Your task to perform on an android device: Show me productivity apps on the Play Store Image 0: 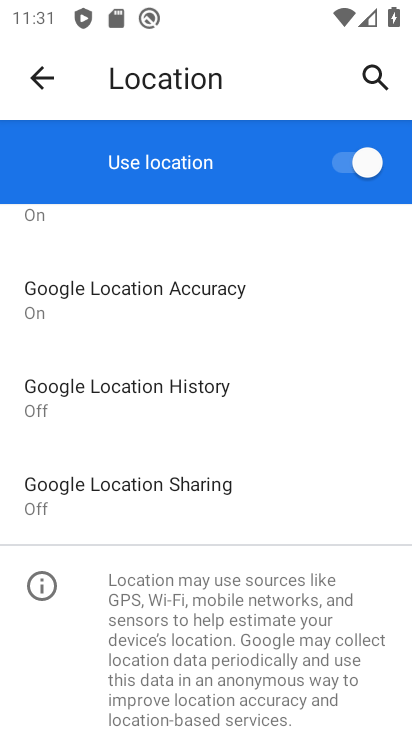
Step 0: press home button
Your task to perform on an android device: Show me productivity apps on the Play Store Image 1: 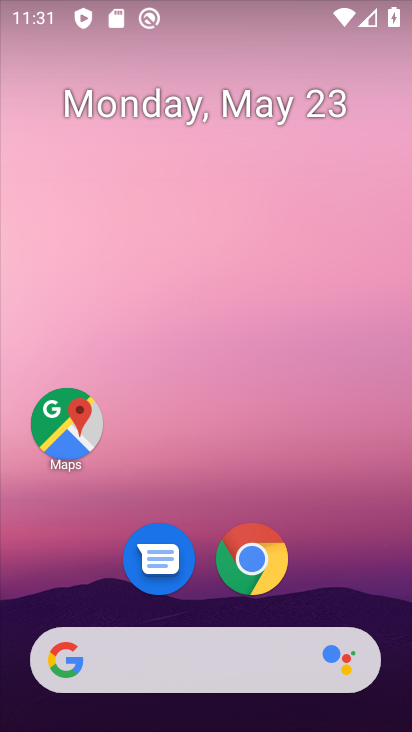
Step 1: drag from (393, 696) to (377, 68)
Your task to perform on an android device: Show me productivity apps on the Play Store Image 2: 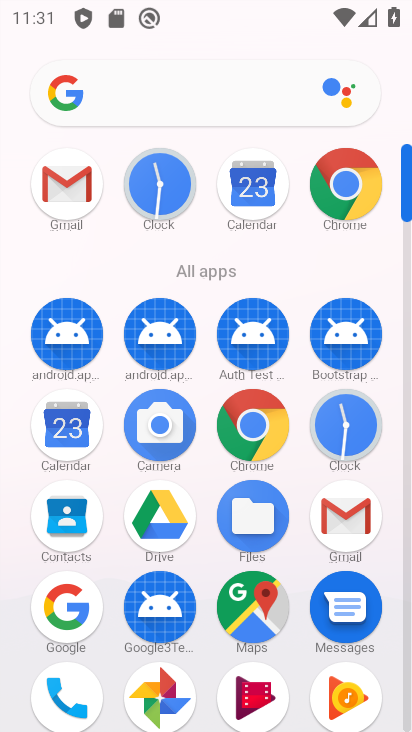
Step 2: drag from (404, 146) to (409, 18)
Your task to perform on an android device: Show me productivity apps on the Play Store Image 3: 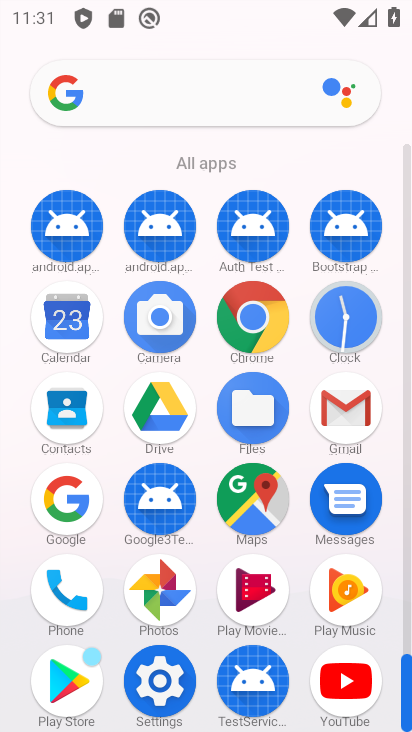
Step 3: click (73, 673)
Your task to perform on an android device: Show me productivity apps on the Play Store Image 4: 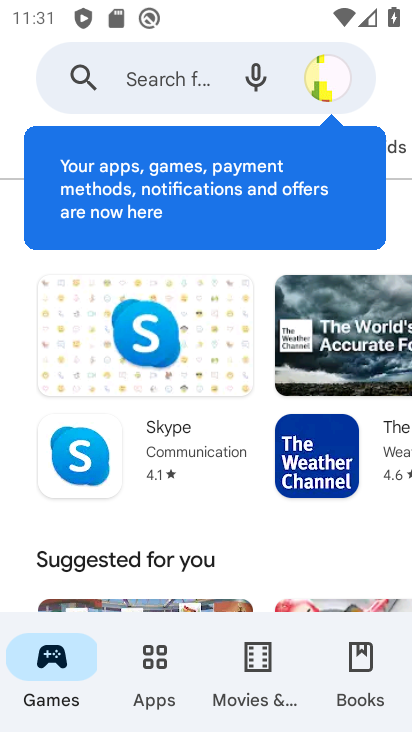
Step 4: click (184, 77)
Your task to perform on an android device: Show me productivity apps on the Play Store Image 5: 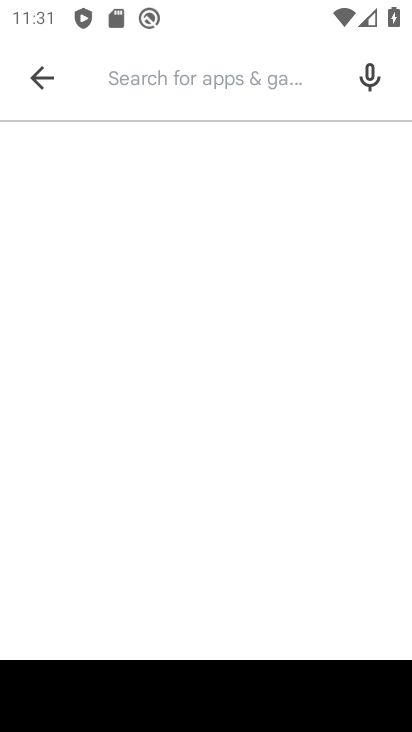
Step 5: type "productivity apps"
Your task to perform on an android device: Show me productivity apps on the Play Store Image 6: 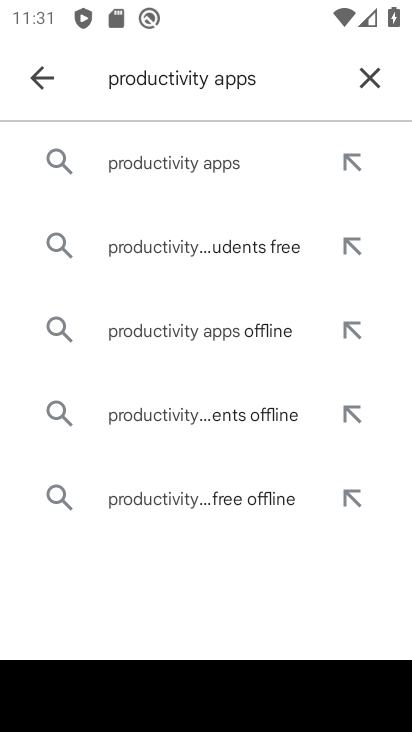
Step 6: click (184, 161)
Your task to perform on an android device: Show me productivity apps on the Play Store Image 7: 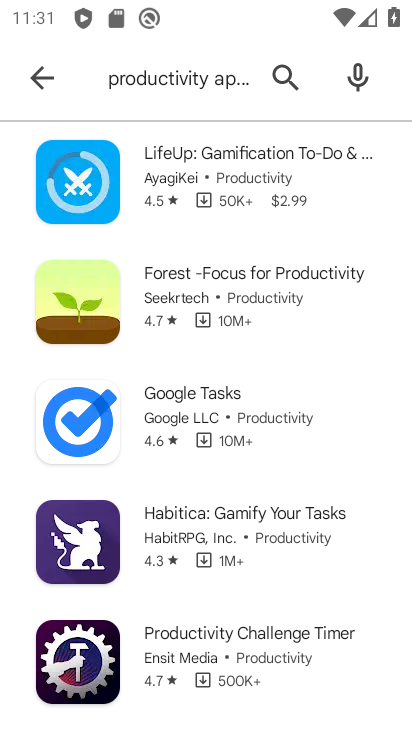
Step 7: task complete